Your task to perform on an android device: Turn off the flashlight Image 0: 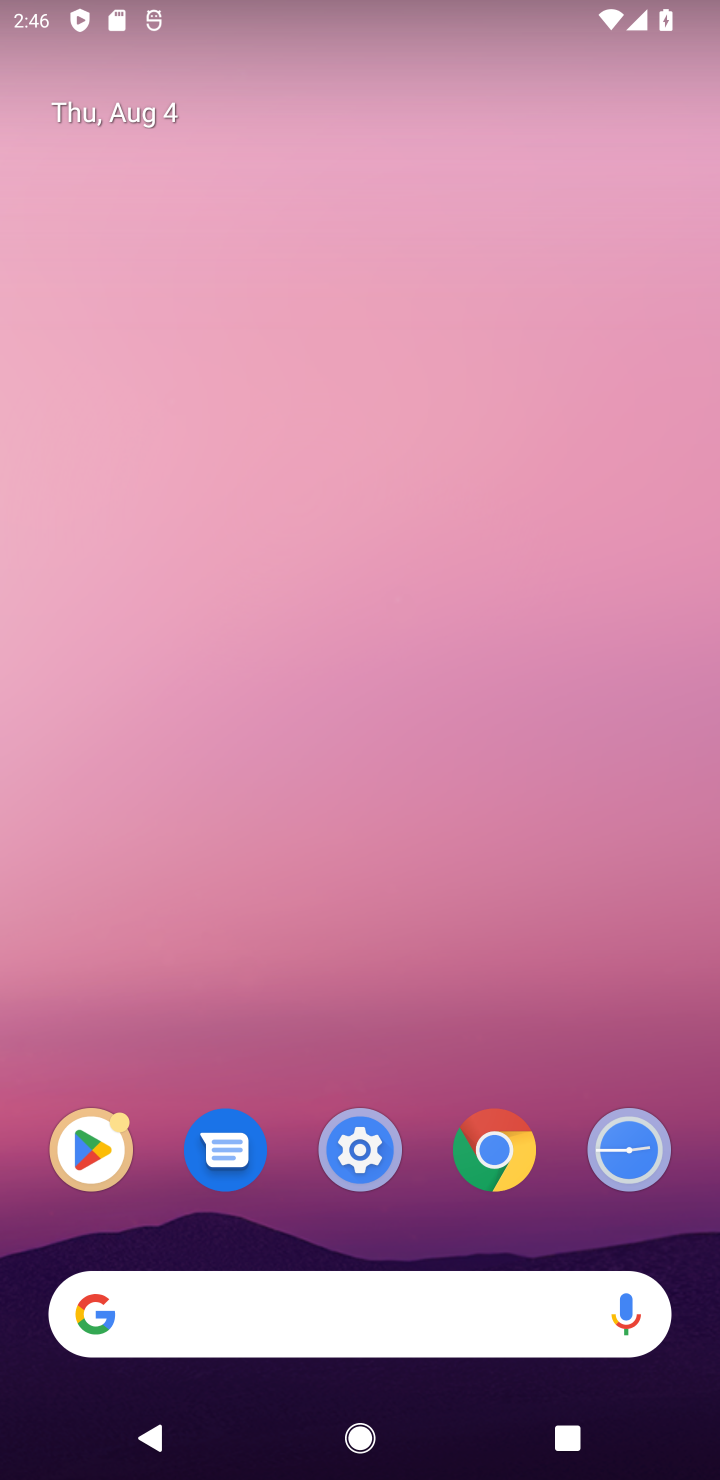
Step 0: click (210, 59)
Your task to perform on an android device: Turn off the flashlight Image 1: 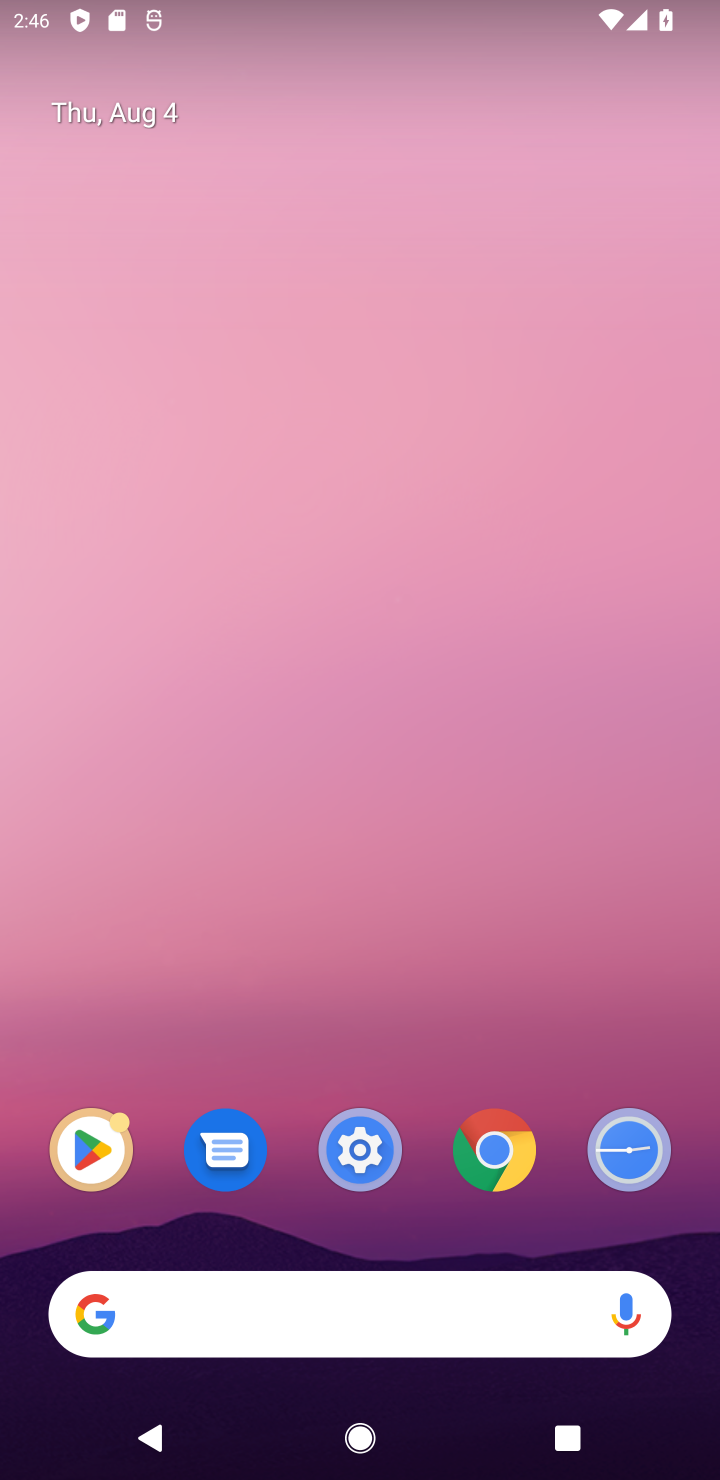
Step 1: click (265, 138)
Your task to perform on an android device: Turn off the flashlight Image 2: 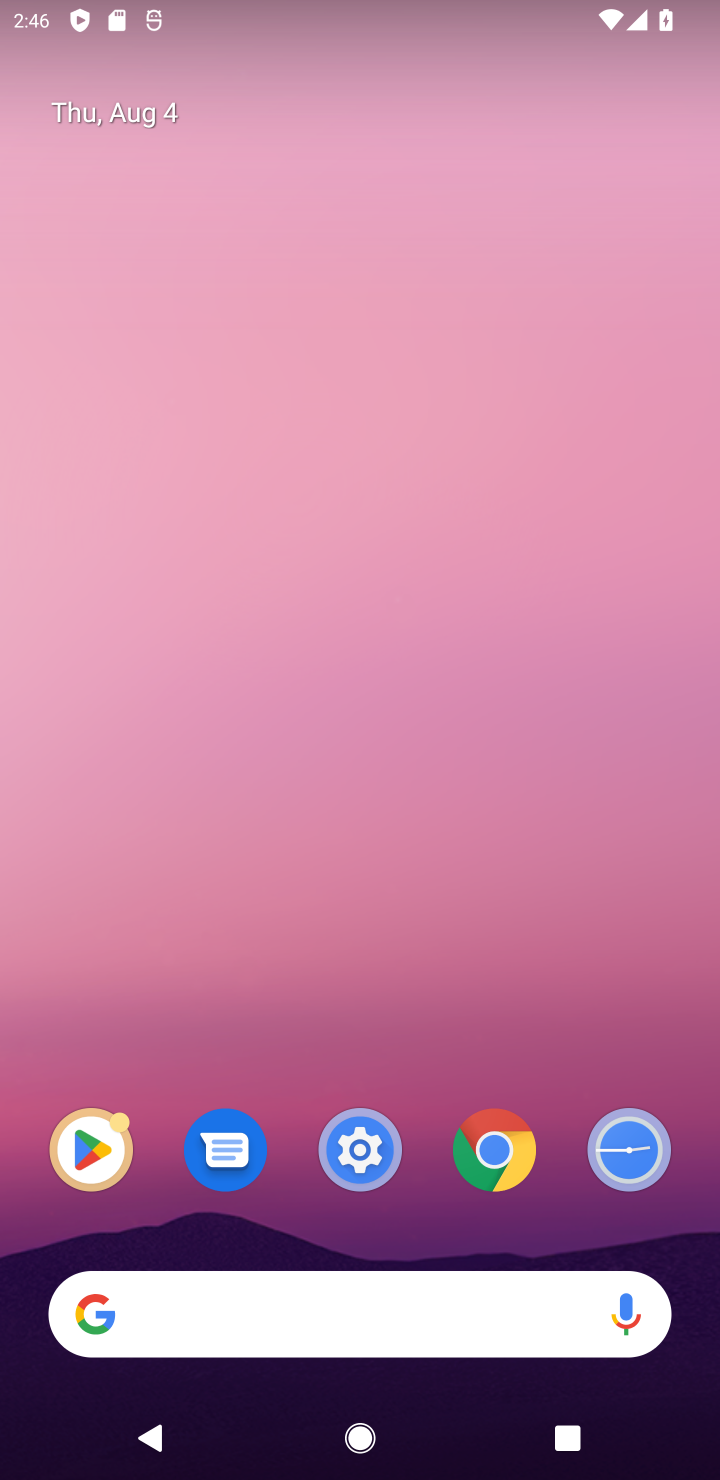
Step 2: task complete